Your task to perform on an android device: check data usage Image 0: 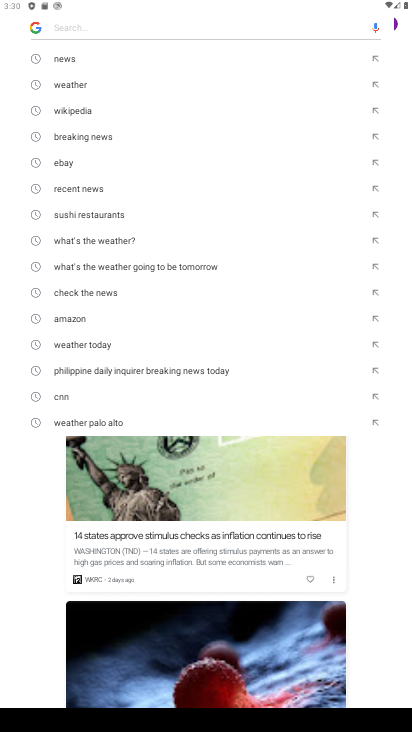
Step 0: press home button
Your task to perform on an android device: check data usage Image 1: 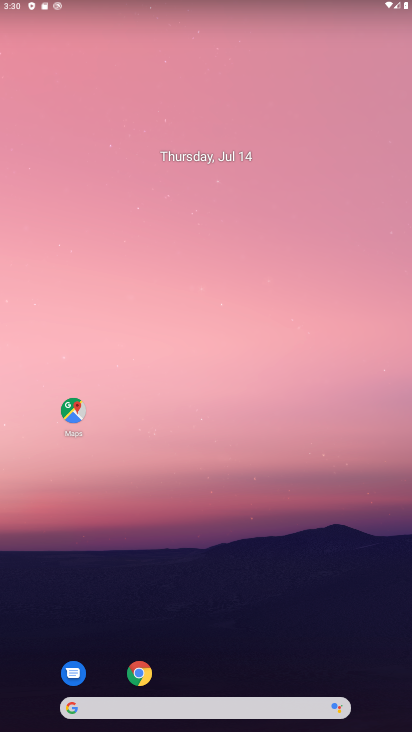
Step 1: drag from (197, 621) to (210, 36)
Your task to perform on an android device: check data usage Image 2: 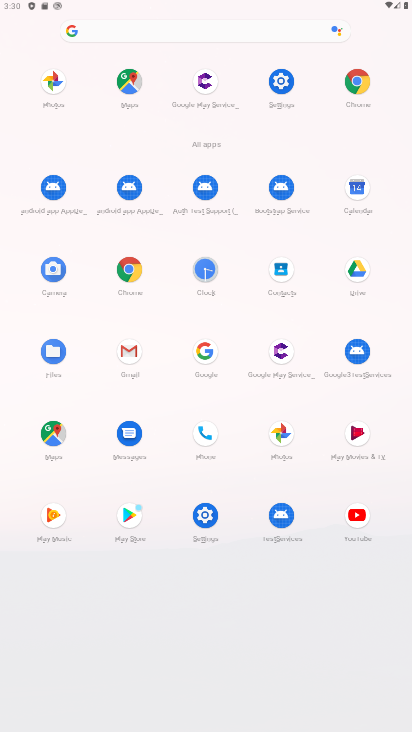
Step 2: click (277, 71)
Your task to perform on an android device: check data usage Image 3: 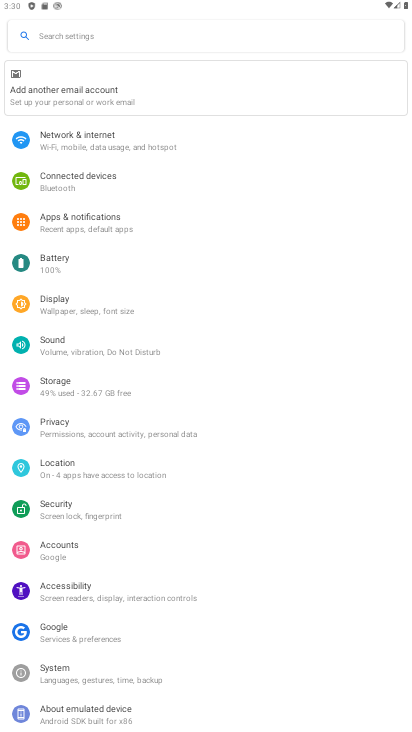
Step 3: click (108, 142)
Your task to perform on an android device: check data usage Image 4: 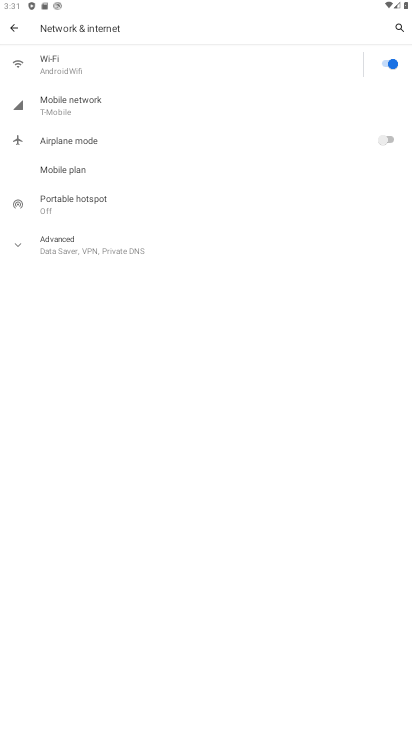
Step 4: click (96, 103)
Your task to perform on an android device: check data usage Image 5: 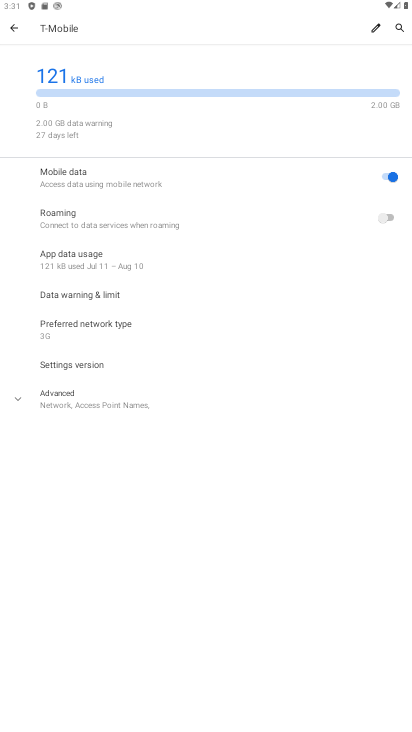
Step 5: click (99, 257)
Your task to perform on an android device: check data usage Image 6: 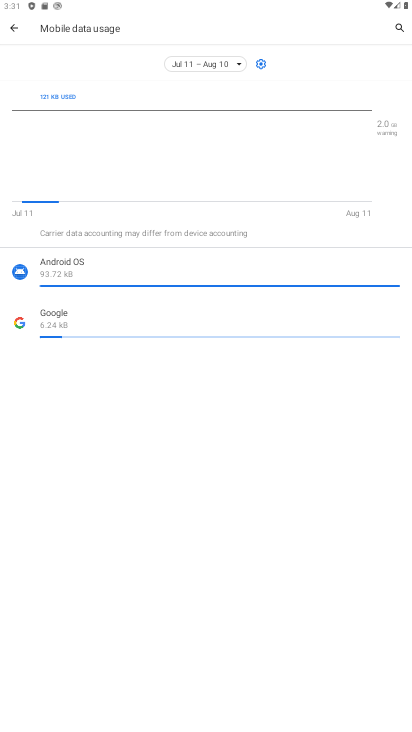
Step 6: task complete